Your task to perform on an android device: visit the assistant section in the google photos Image 0: 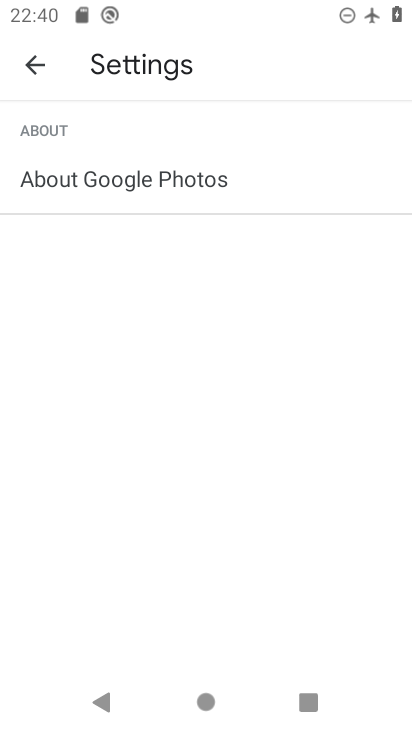
Step 0: press home button
Your task to perform on an android device: visit the assistant section in the google photos Image 1: 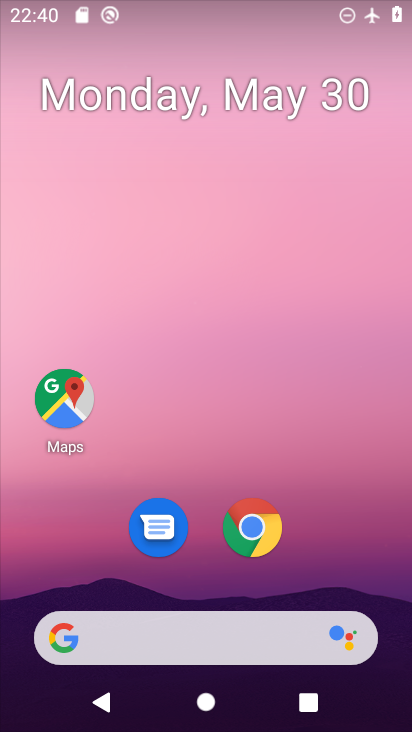
Step 1: drag from (311, 557) to (262, 172)
Your task to perform on an android device: visit the assistant section in the google photos Image 2: 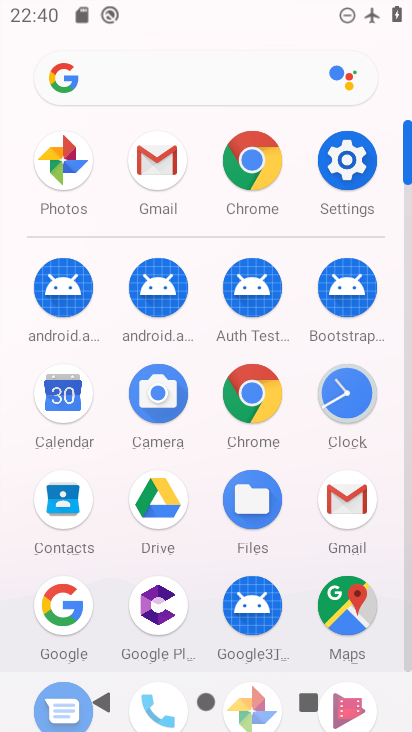
Step 2: drag from (187, 577) to (205, 385)
Your task to perform on an android device: visit the assistant section in the google photos Image 3: 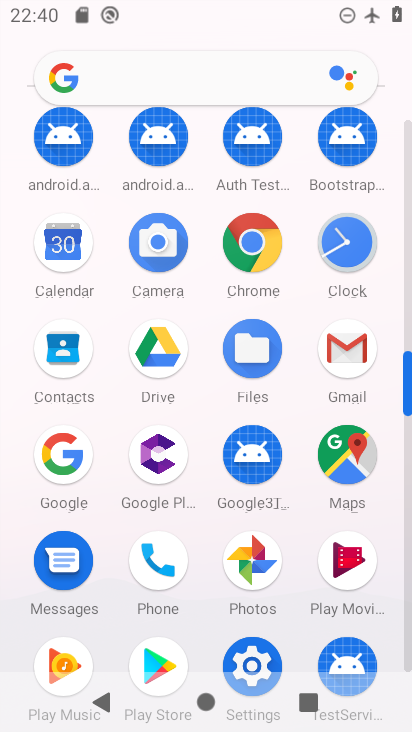
Step 3: click (236, 566)
Your task to perform on an android device: visit the assistant section in the google photos Image 4: 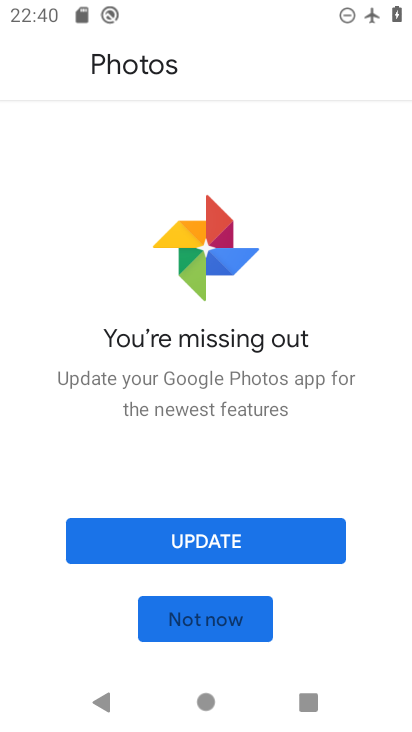
Step 4: click (201, 614)
Your task to perform on an android device: visit the assistant section in the google photos Image 5: 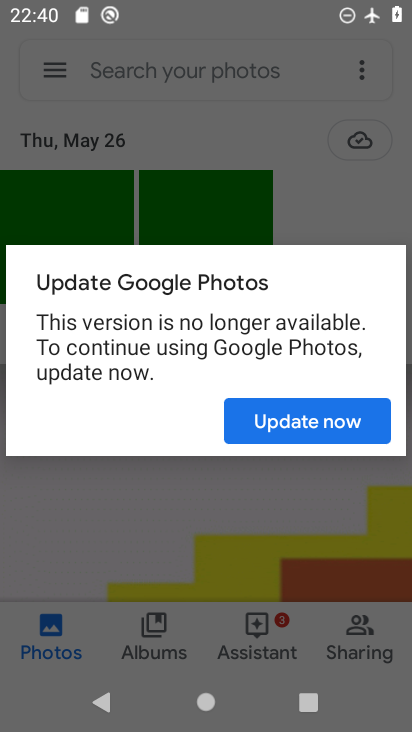
Step 5: click (298, 421)
Your task to perform on an android device: visit the assistant section in the google photos Image 6: 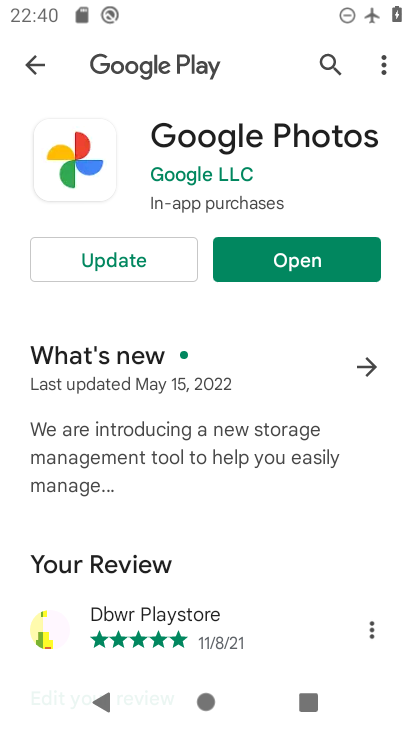
Step 6: press back button
Your task to perform on an android device: visit the assistant section in the google photos Image 7: 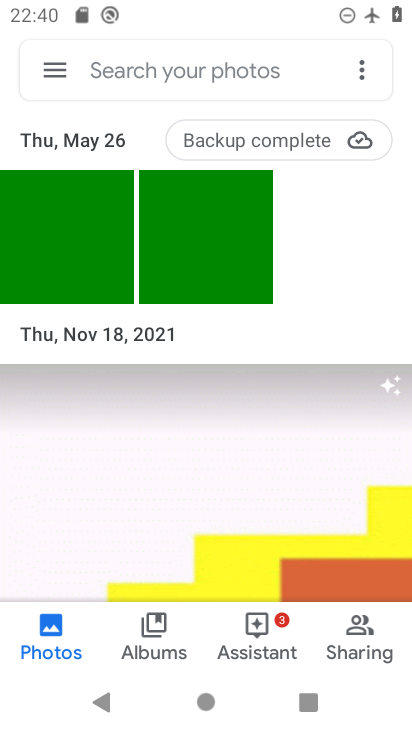
Step 7: click (243, 634)
Your task to perform on an android device: visit the assistant section in the google photos Image 8: 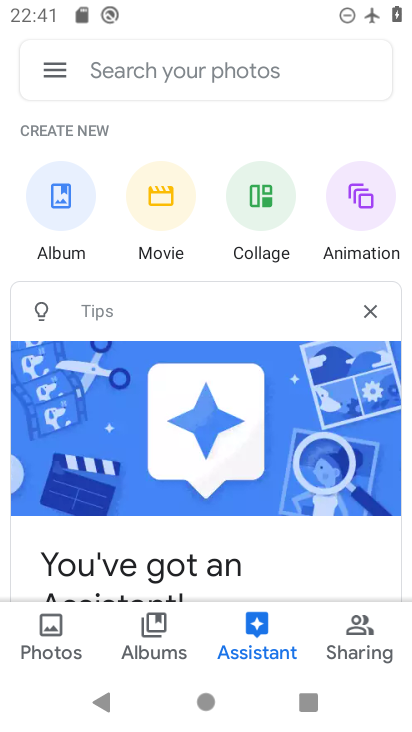
Step 8: task complete